Your task to perform on an android device: Open the stopwatch Image 0: 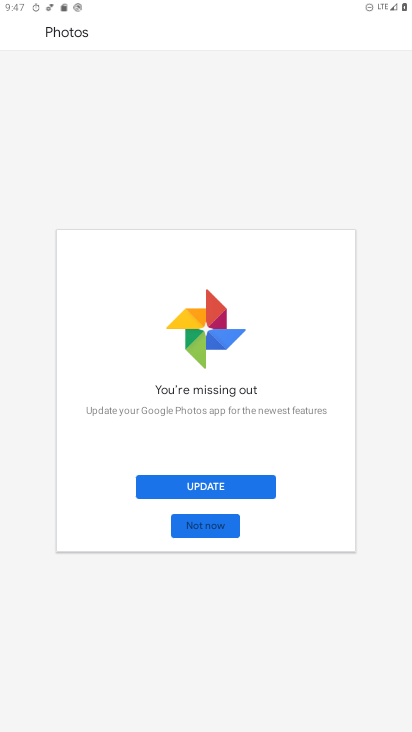
Step 0: press home button
Your task to perform on an android device: Open the stopwatch Image 1: 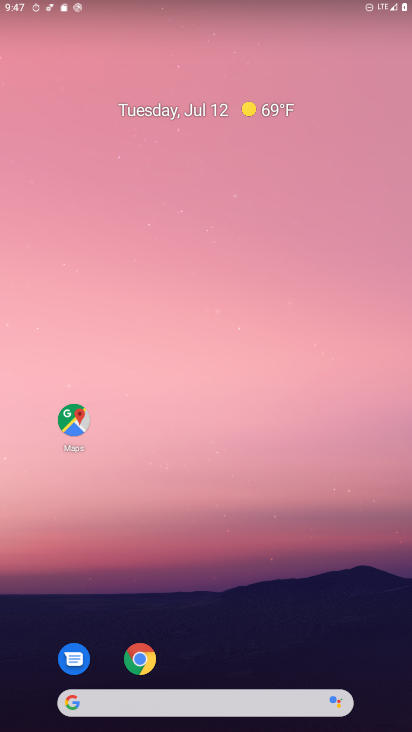
Step 1: drag from (247, 730) to (252, 210)
Your task to perform on an android device: Open the stopwatch Image 2: 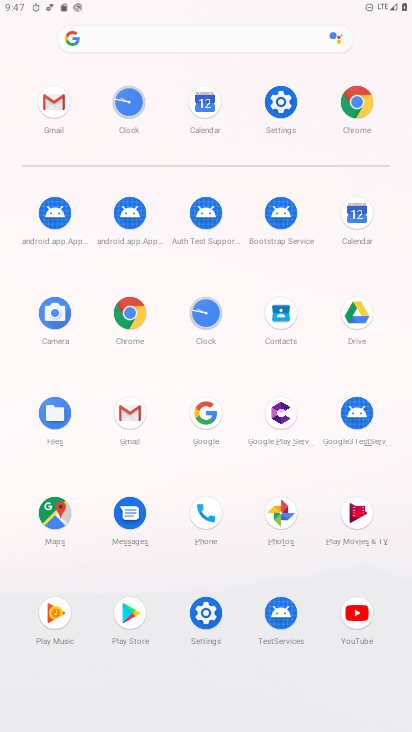
Step 2: click (202, 314)
Your task to perform on an android device: Open the stopwatch Image 3: 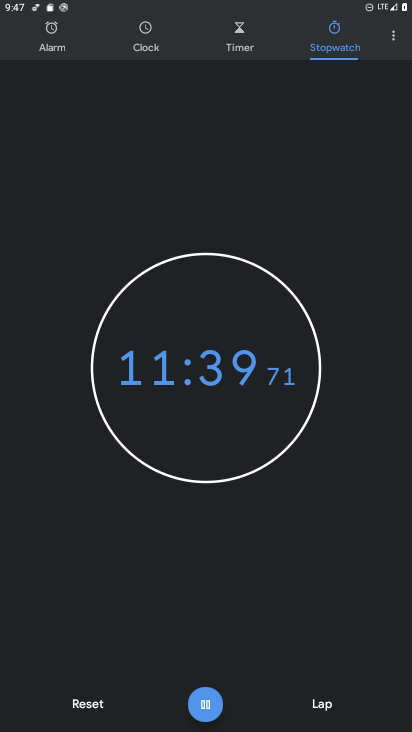
Step 3: task complete